Your task to perform on an android device: delete a single message in the gmail app Image 0: 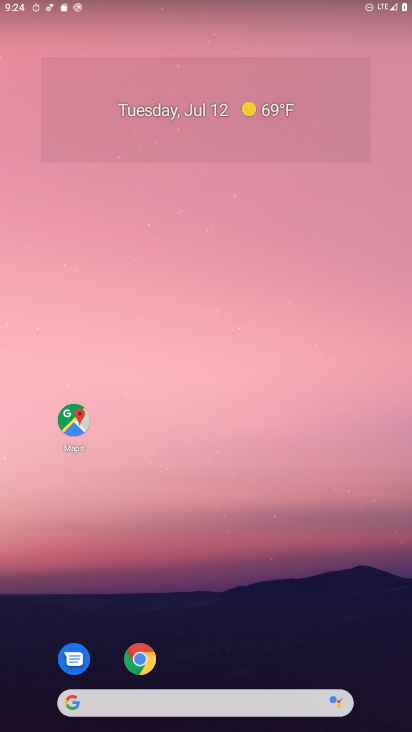
Step 0: drag from (257, 725) to (260, 77)
Your task to perform on an android device: delete a single message in the gmail app Image 1: 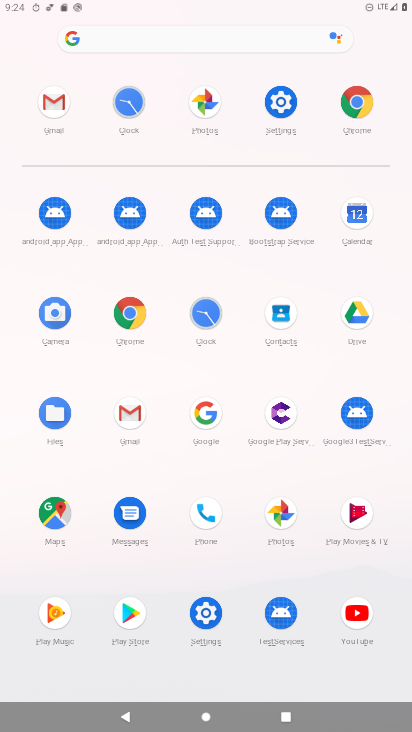
Step 1: click (133, 413)
Your task to perform on an android device: delete a single message in the gmail app Image 2: 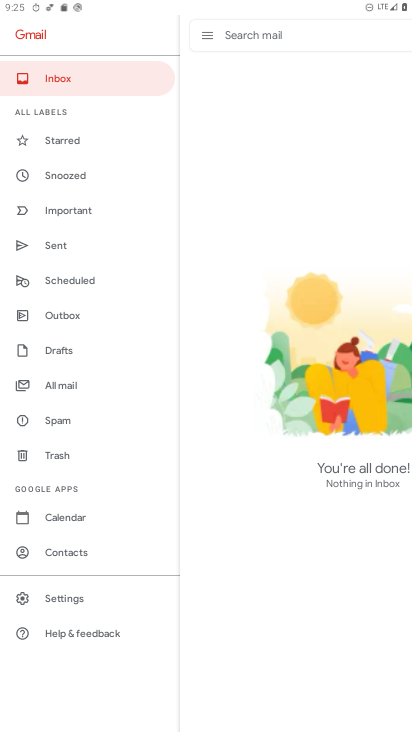
Step 2: task complete